Your task to perform on an android device: Search for Mexican restaurants on Maps Image 0: 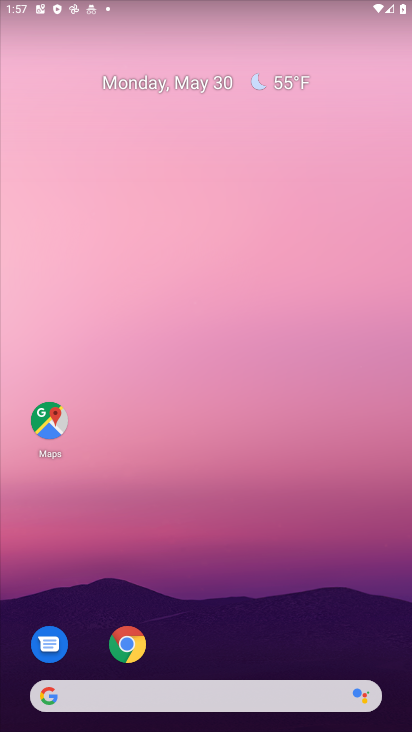
Step 0: click (58, 430)
Your task to perform on an android device: Search for Mexican restaurants on Maps Image 1: 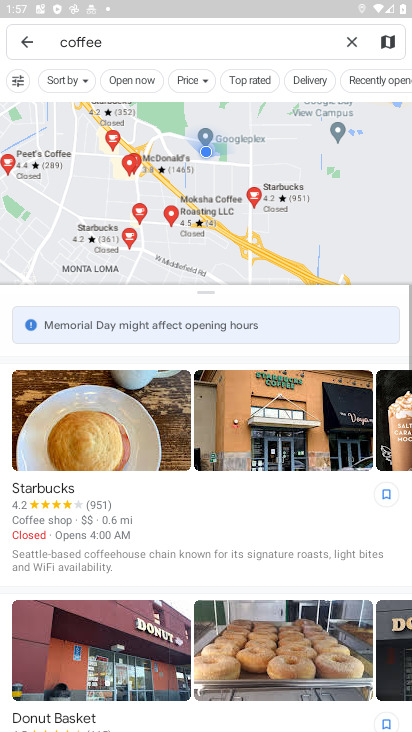
Step 1: click (357, 47)
Your task to perform on an android device: Search for Mexican restaurants on Maps Image 2: 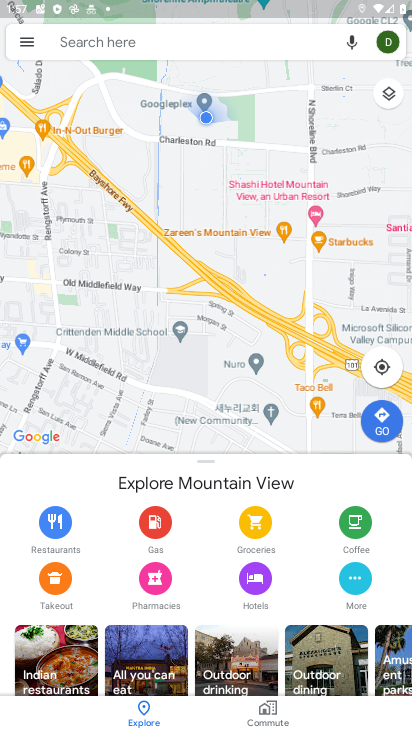
Step 2: type "mexican"
Your task to perform on an android device: Search for Mexican restaurants on Maps Image 3: 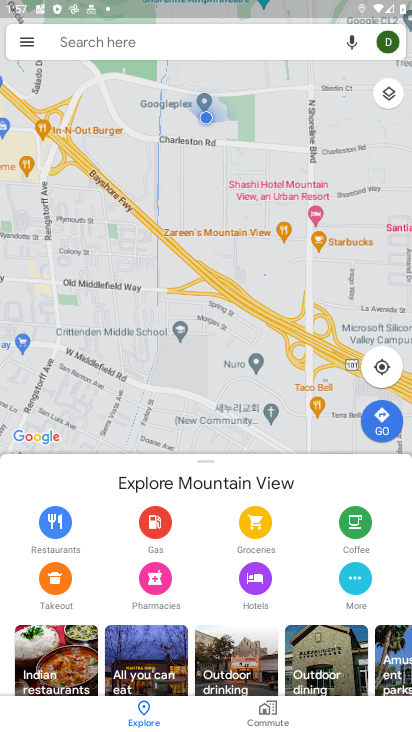
Step 3: task complete